Your task to perform on an android device: open chrome and create a bookmark for the current page Image 0: 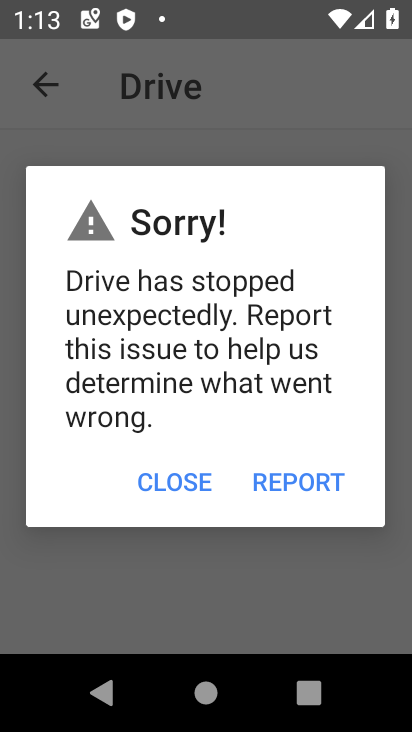
Step 0: press home button
Your task to perform on an android device: open chrome and create a bookmark for the current page Image 1: 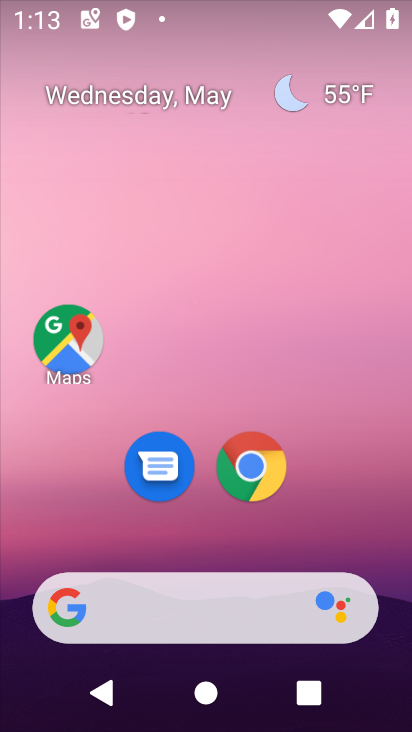
Step 1: click (248, 469)
Your task to perform on an android device: open chrome and create a bookmark for the current page Image 2: 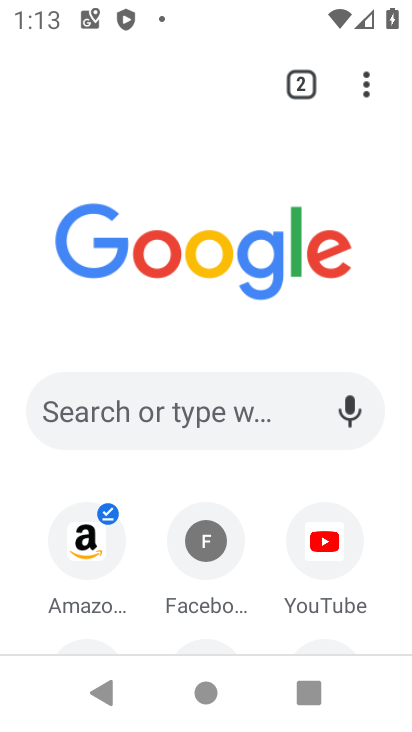
Step 2: click (368, 80)
Your task to perform on an android device: open chrome and create a bookmark for the current page Image 3: 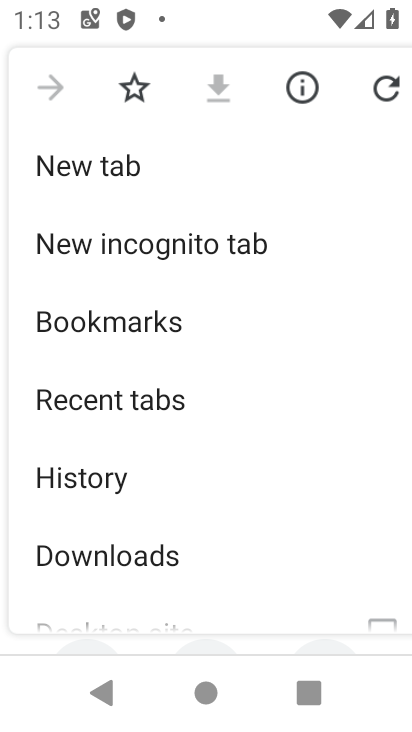
Step 3: click (140, 94)
Your task to perform on an android device: open chrome and create a bookmark for the current page Image 4: 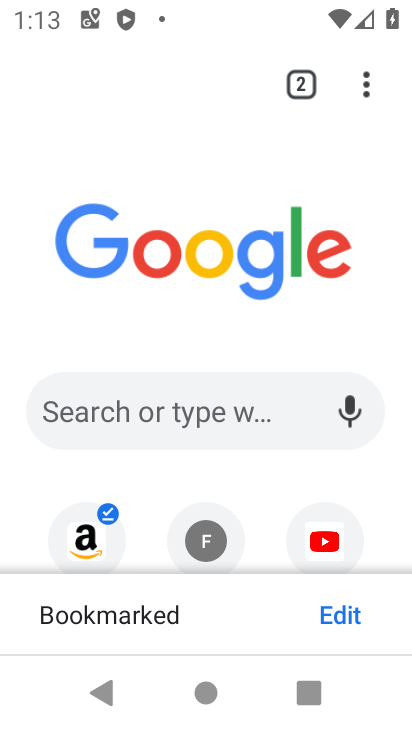
Step 4: task complete